Your task to perform on an android device: create a new album in the google photos Image 0: 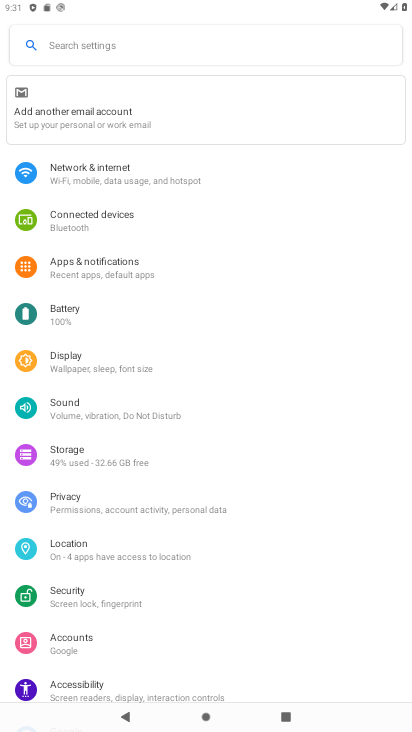
Step 0: press home button
Your task to perform on an android device: create a new album in the google photos Image 1: 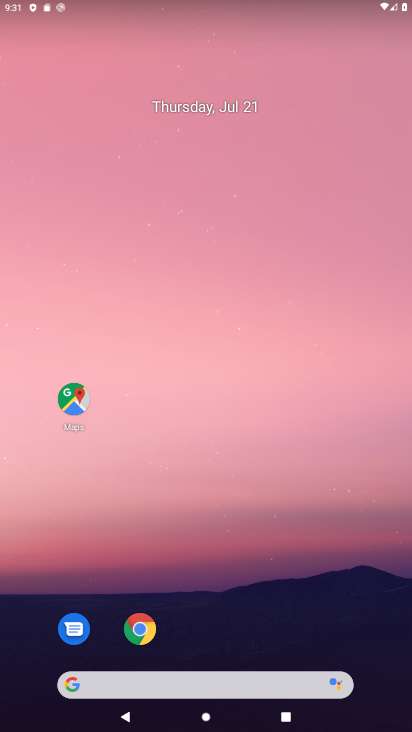
Step 1: drag from (272, 494) to (226, 19)
Your task to perform on an android device: create a new album in the google photos Image 2: 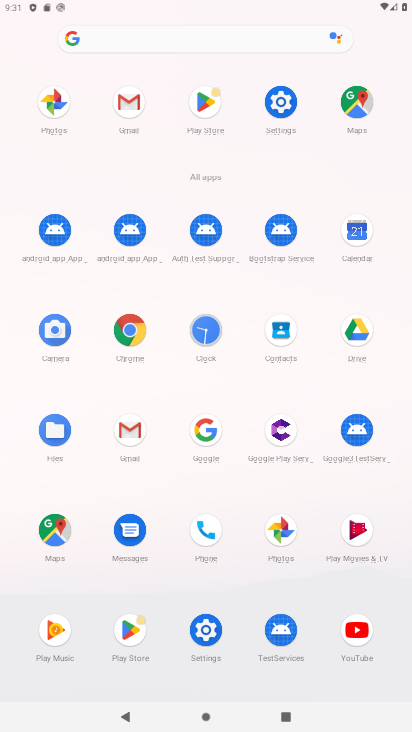
Step 2: click (59, 101)
Your task to perform on an android device: create a new album in the google photos Image 3: 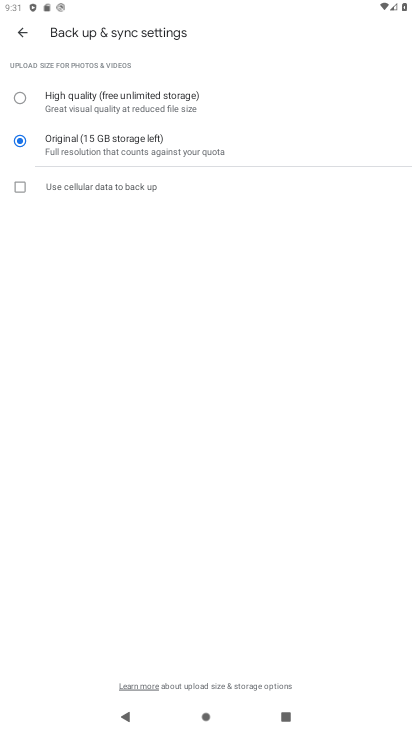
Step 3: click (24, 29)
Your task to perform on an android device: create a new album in the google photos Image 4: 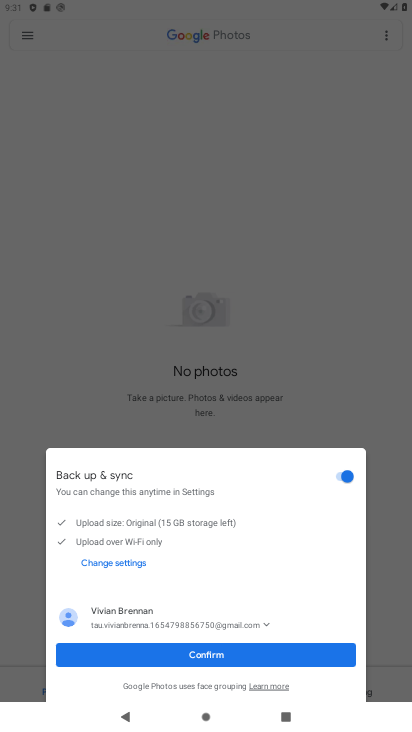
Step 4: click (180, 657)
Your task to perform on an android device: create a new album in the google photos Image 5: 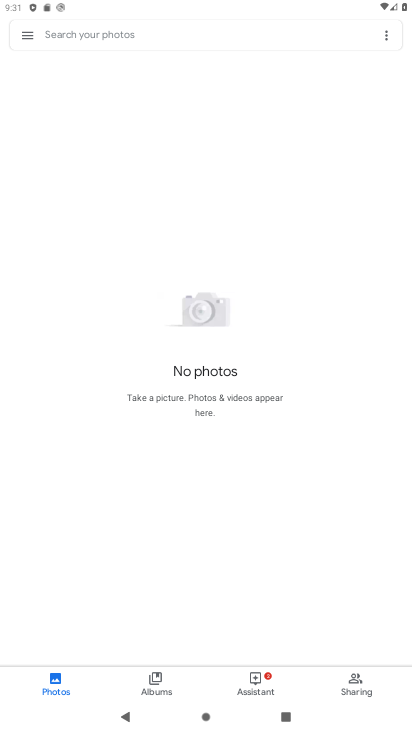
Step 5: task complete